Your task to perform on an android device: Add razer blade to the cart on ebay, then select checkout. Image 0: 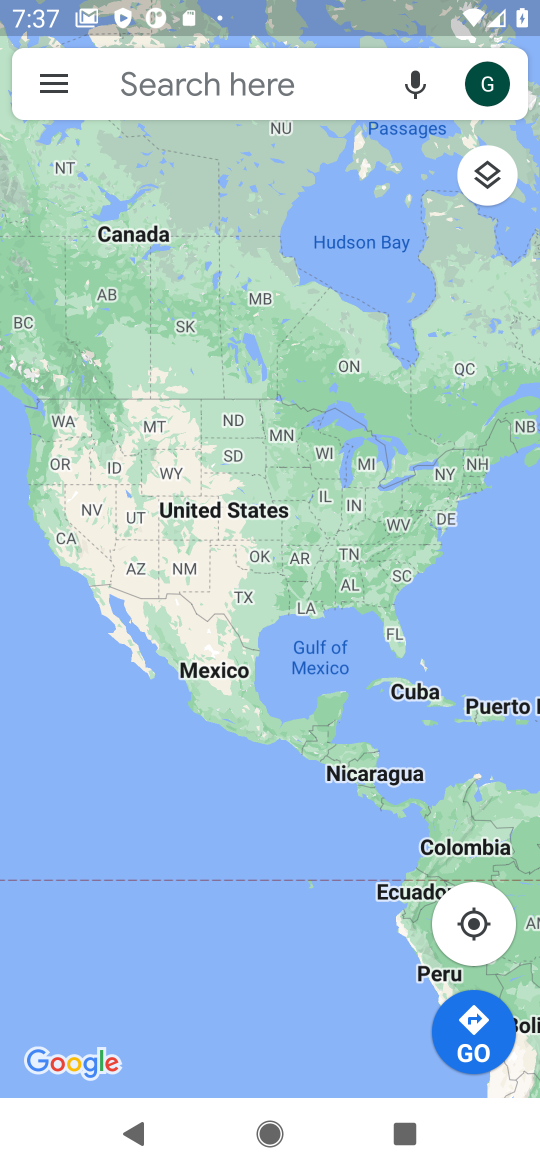
Step 0: press home button
Your task to perform on an android device: Add razer blade to the cart on ebay, then select checkout. Image 1: 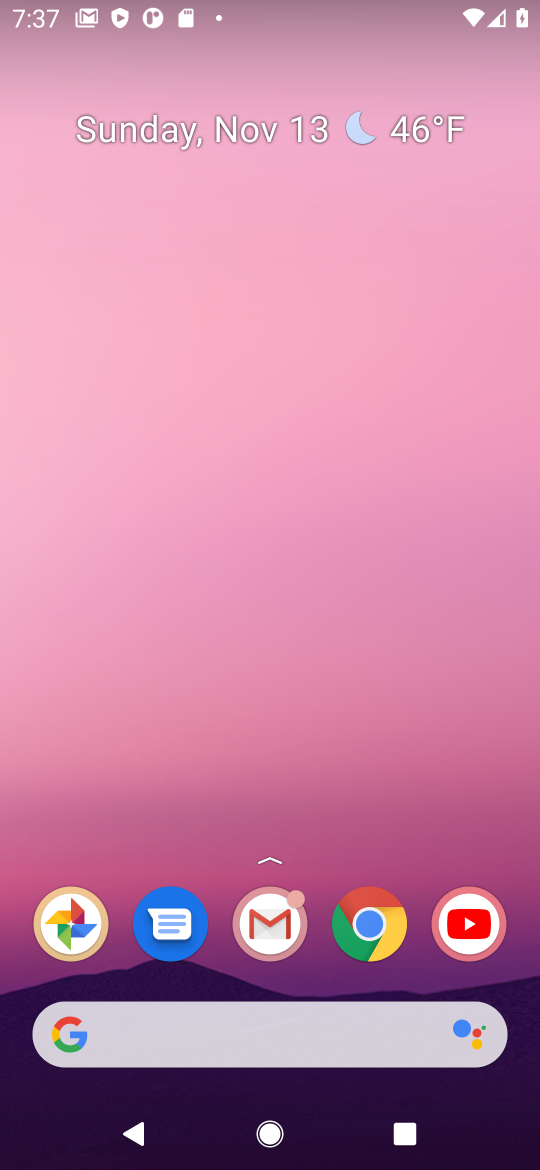
Step 1: click (368, 917)
Your task to perform on an android device: Add razer blade to the cart on ebay, then select checkout. Image 2: 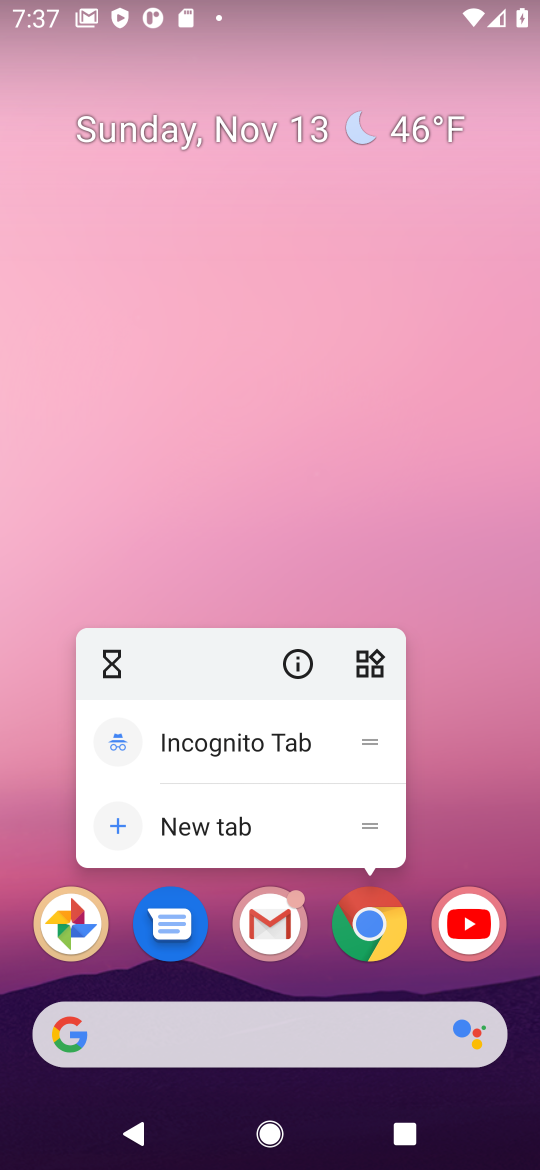
Step 2: click (366, 937)
Your task to perform on an android device: Add razer blade to the cart on ebay, then select checkout. Image 3: 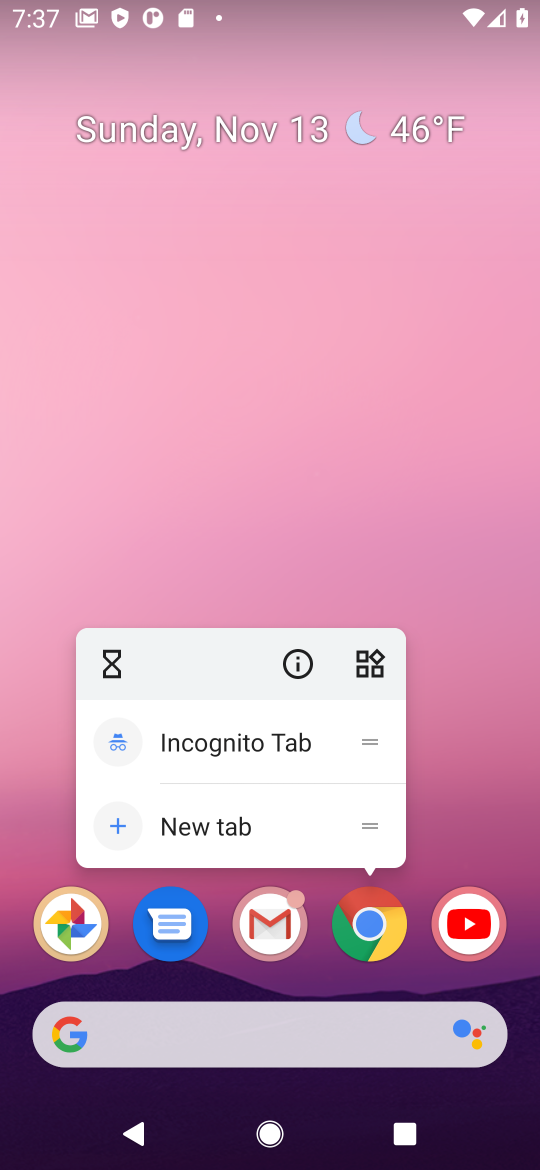
Step 3: click (368, 935)
Your task to perform on an android device: Add razer blade to the cart on ebay, then select checkout. Image 4: 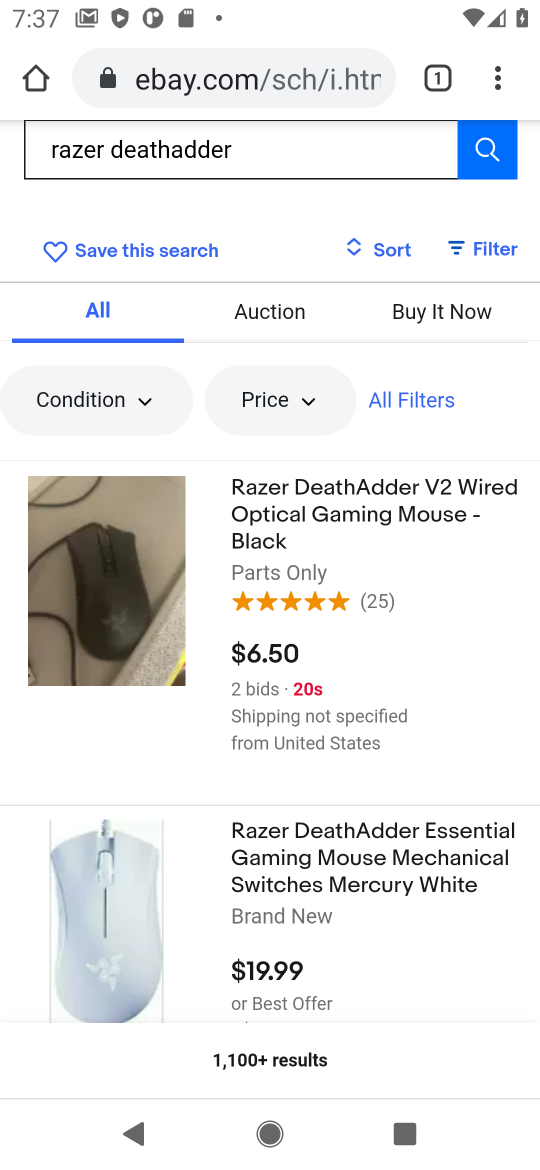
Step 4: click (272, 143)
Your task to perform on an android device: Add razer blade to the cart on ebay, then select checkout. Image 5: 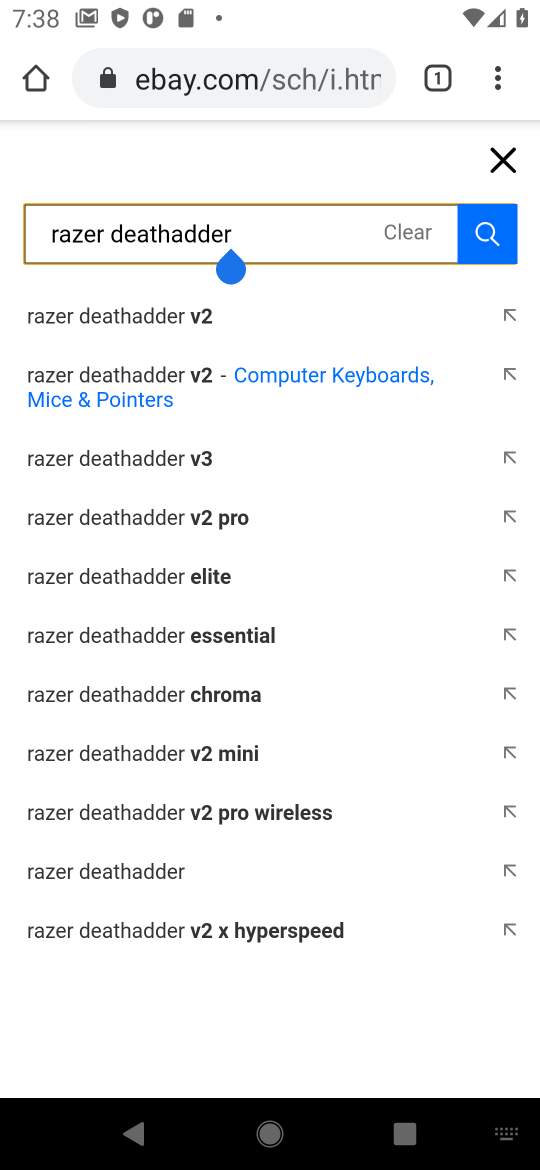
Step 5: click (407, 220)
Your task to perform on an android device: Add razer blade to the cart on ebay, then select checkout. Image 6: 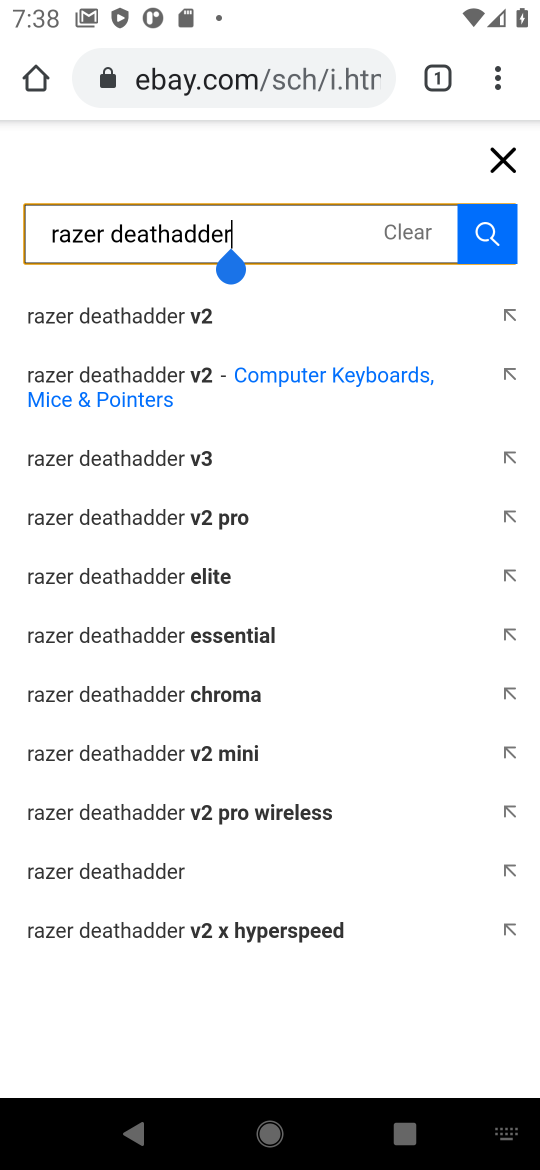
Step 6: click (409, 226)
Your task to perform on an android device: Add razer blade to the cart on ebay, then select checkout. Image 7: 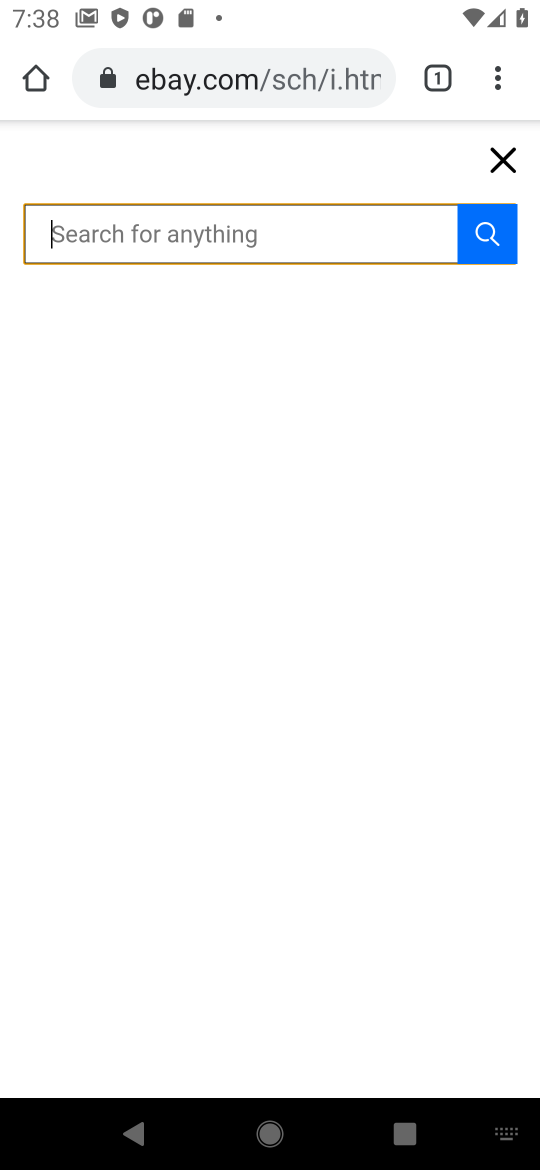
Step 7: type " razer blade"
Your task to perform on an android device: Add razer blade to the cart on ebay, then select checkout. Image 8: 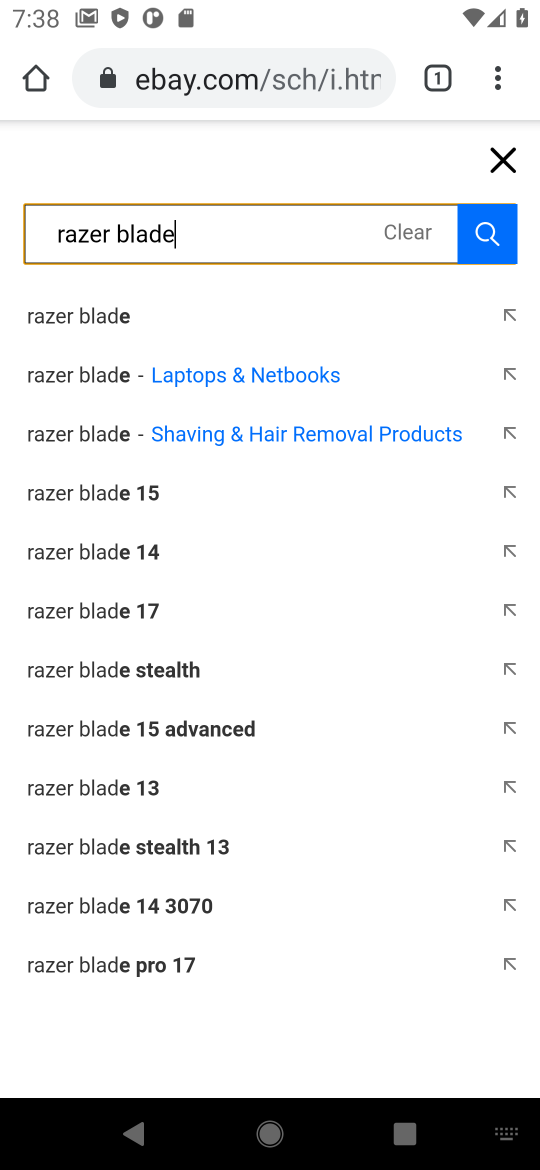
Step 8: press enter
Your task to perform on an android device: Add razer blade to the cart on ebay, then select checkout. Image 9: 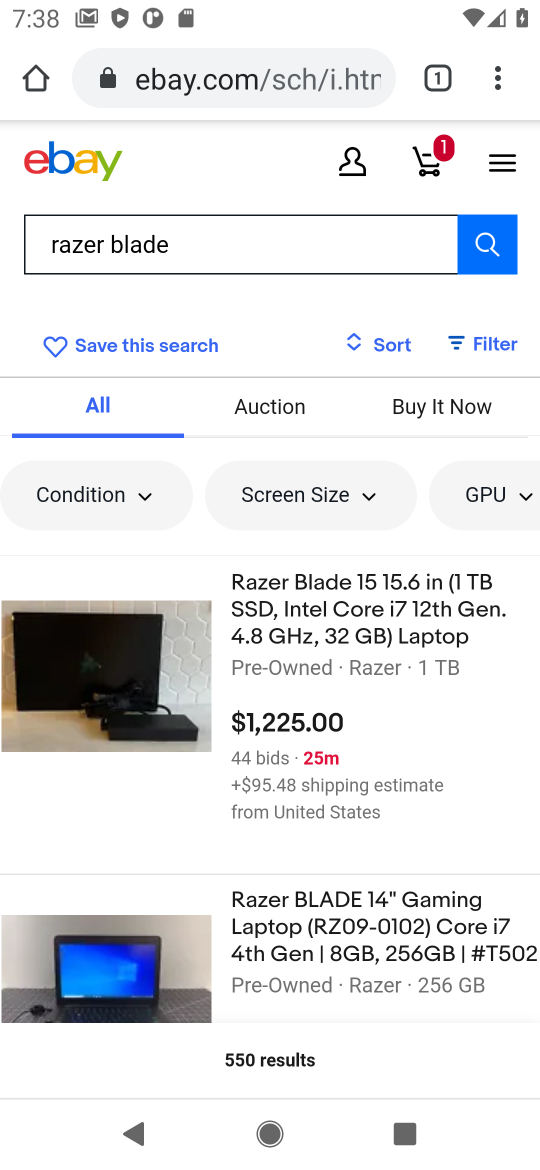
Step 9: click (367, 629)
Your task to perform on an android device: Add razer blade to the cart on ebay, then select checkout. Image 10: 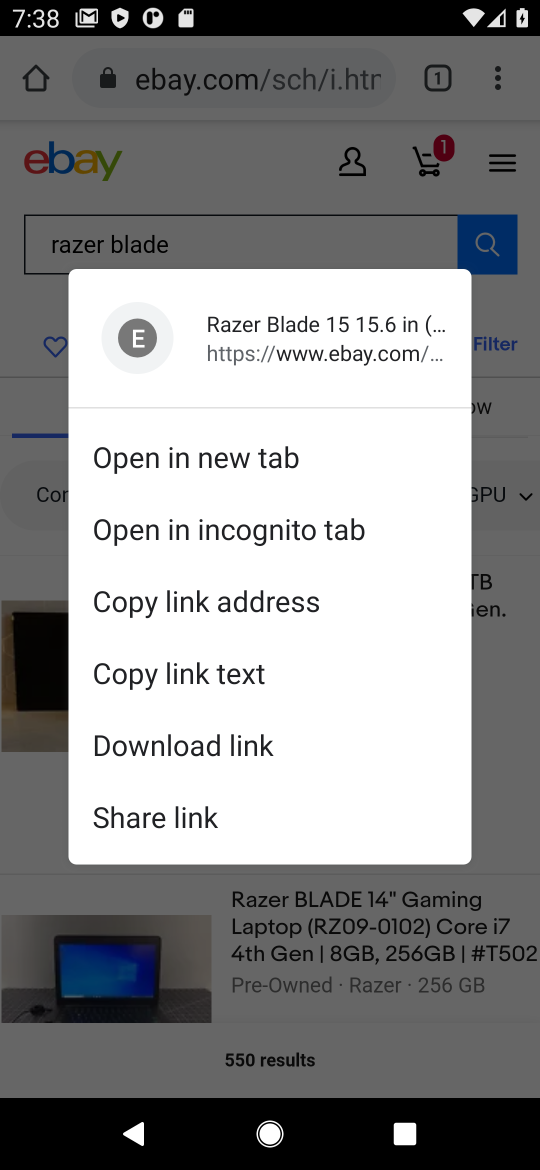
Step 10: click (532, 668)
Your task to perform on an android device: Add razer blade to the cart on ebay, then select checkout. Image 11: 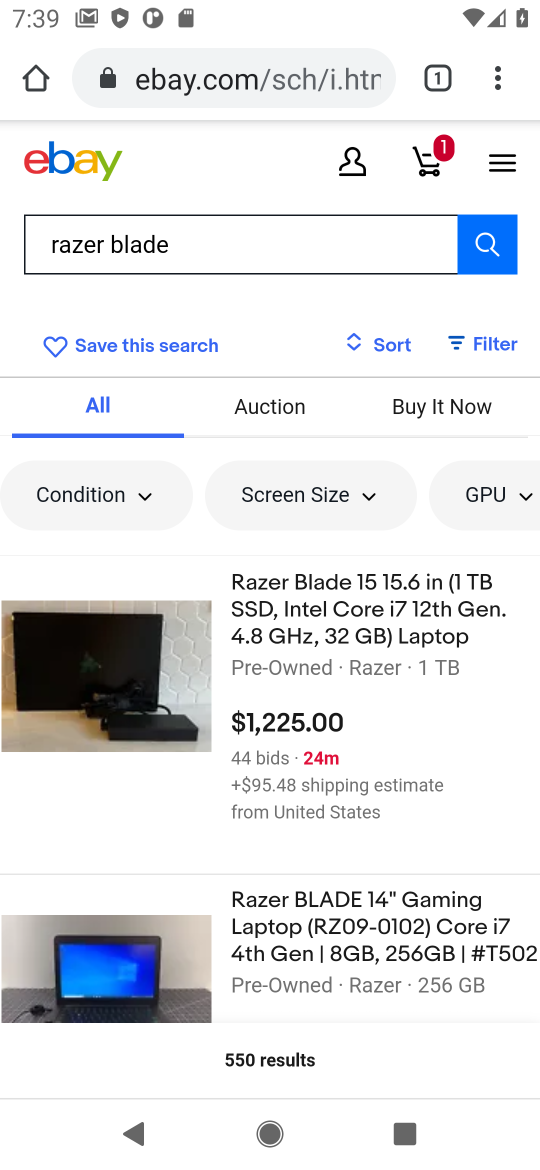
Step 11: click (380, 630)
Your task to perform on an android device: Add razer blade to the cart on ebay, then select checkout. Image 12: 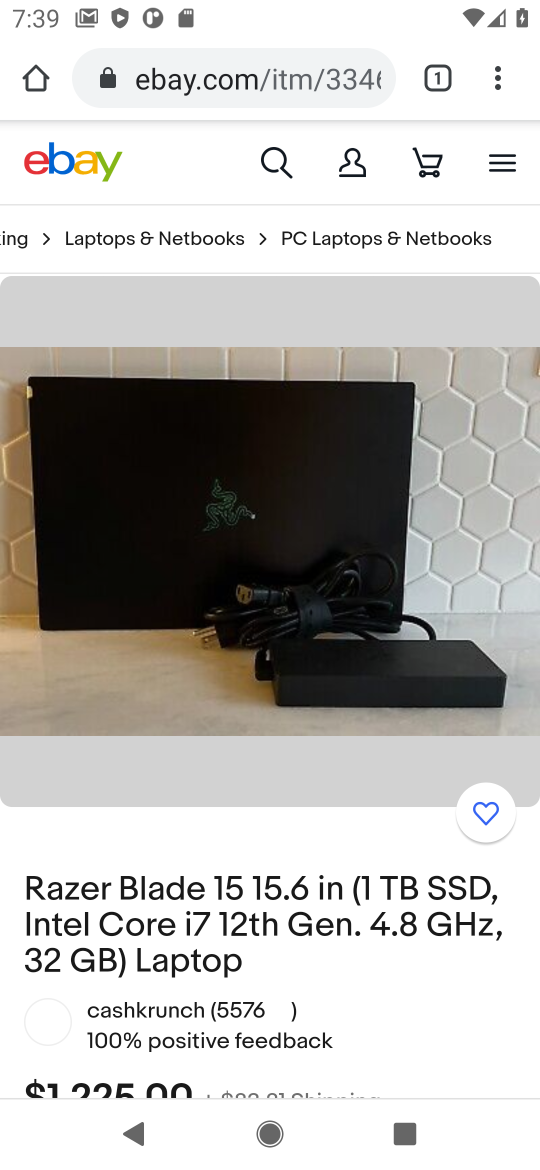
Step 12: task complete